Your task to perform on an android device: Open Maps and search for coffee Image 0: 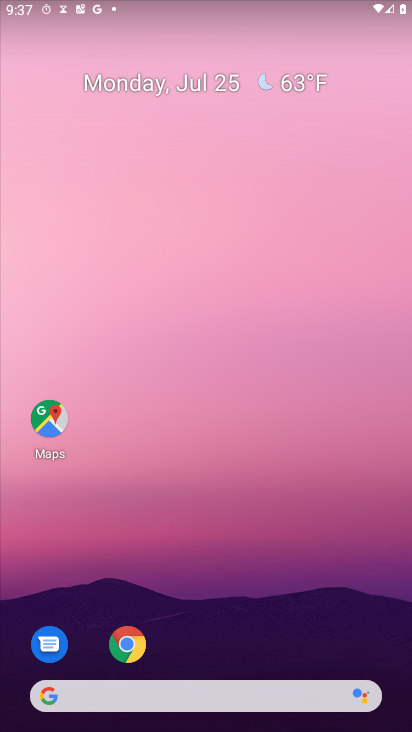
Step 0: drag from (242, 678) to (221, 249)
Your task to perform on an android device: Open Maps and search for coffee Image 1: 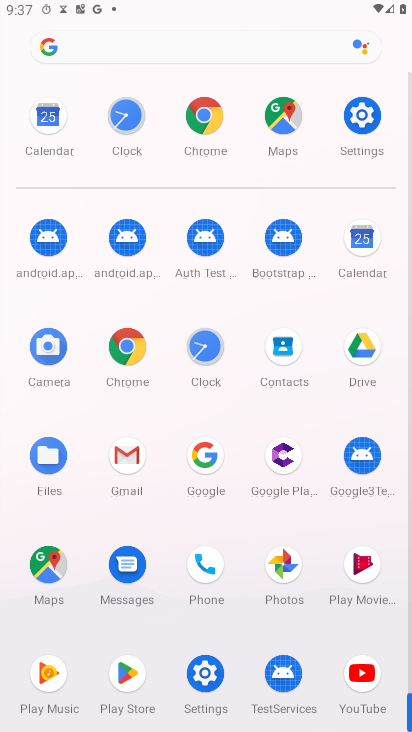
Step 1: click (37, 561)
Your task to perform on an android device: Open Maps and search for coffee Image 2: 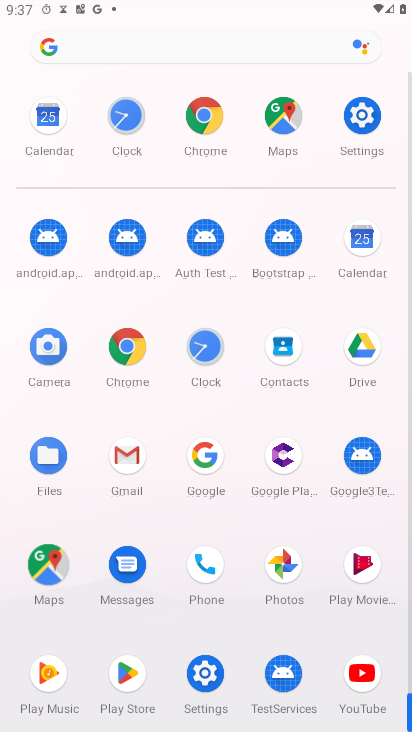
Step 2: click (36, 561)
Your task to perform on an android device: Open Maps and search for coffee Image 3: 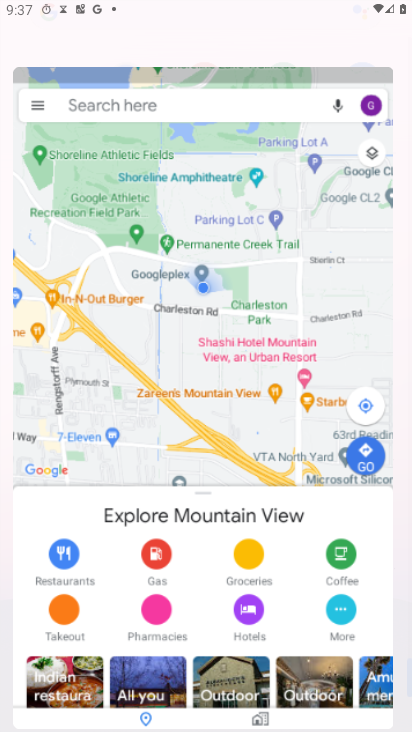
Step 3: click (35, 561)
Your task to perform on an android device: Open Maps and search for coffee Image 4: 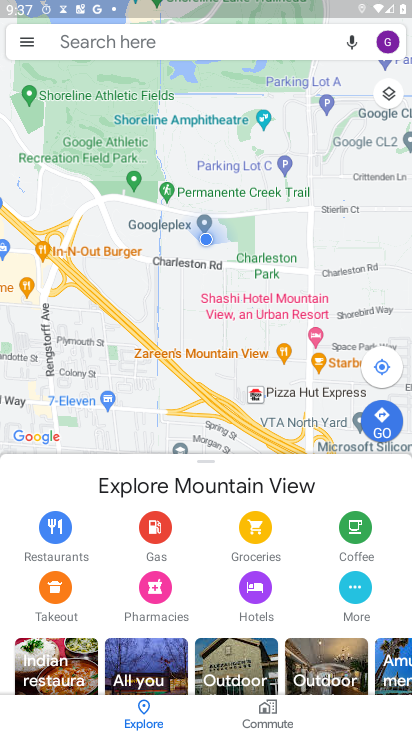
Step 4: click (106, 52)
Your task to perform on an android device: Open Maps and search for coffee Image 5: 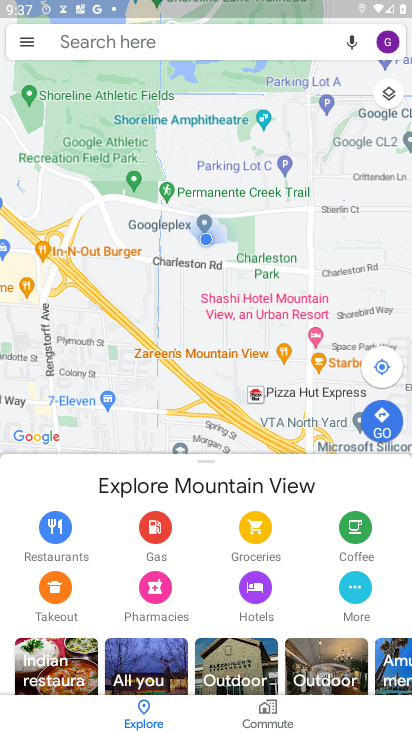
Step 5: click (105, 51)
Your task to perform on an android device: Open Maps and search for coffee Image 6: 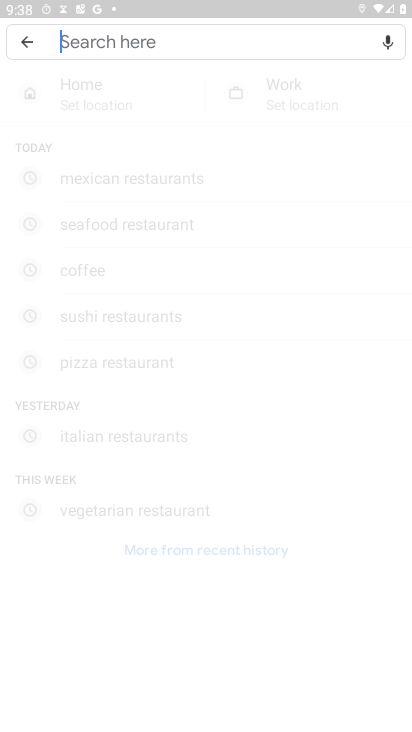
Step 6: click (108, 46)
Your task to perform on an android device: Open Maps and search for coffee Image 7: 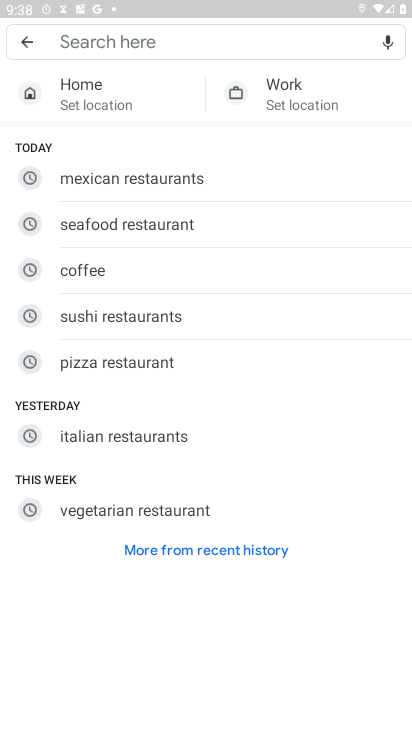
Step 7: click (108, 46)
Your task to perform on an android device: Open Maps and search for coffee Image 8: 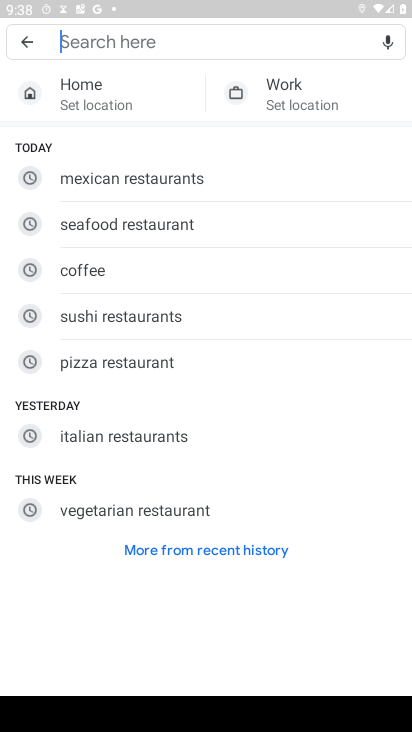
Step 8: click (110, 277)
Your task to perform on an android device: Open Maps and search for coffee Image 9: 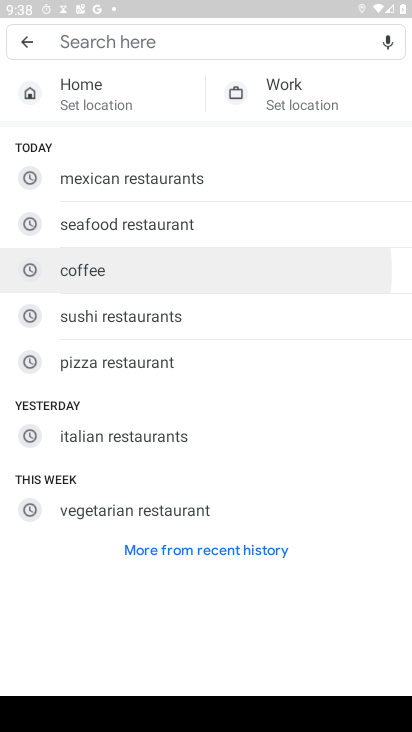
Step 9: click (113, 276)
Your task to perform on an android device: Open Maps and search for coffee Image 10: 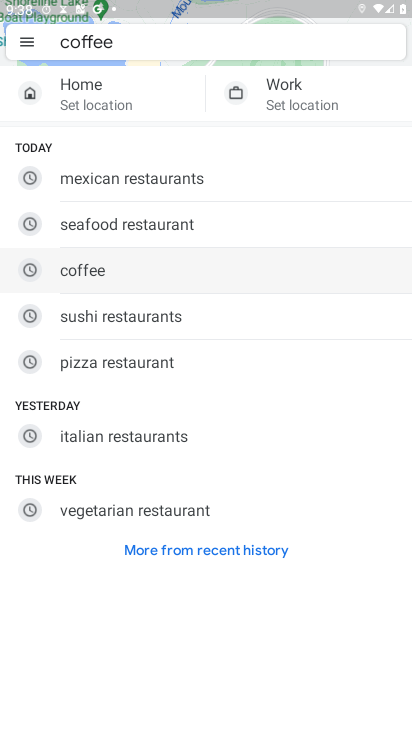
Step 10: click (114, 273)
Your task to perform on an android device: Open Maps and search for coffee Image 11: 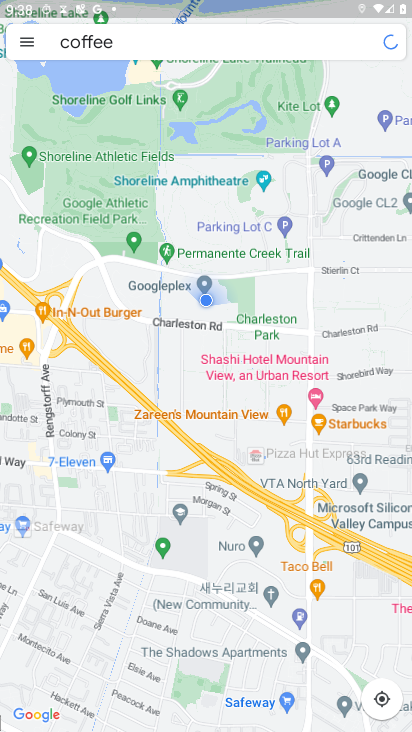
Step 11: click (123, 266)
Your task to perform on an android device: Open Maps and search for coffee Image 12: 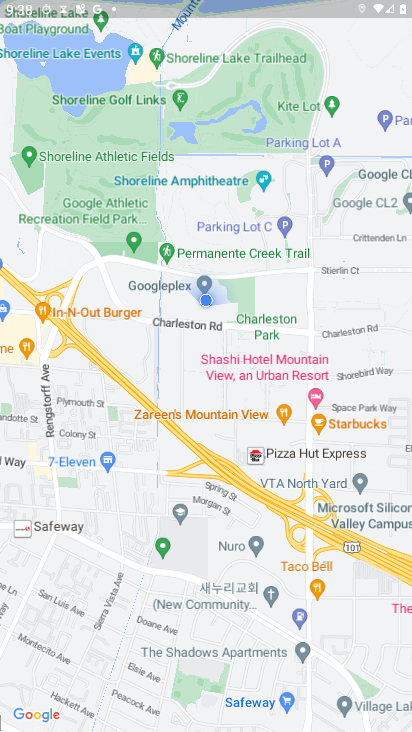
Step 12: task complete